Your task to perform on an android device: What's on my calendar tomorrow? Image 0: 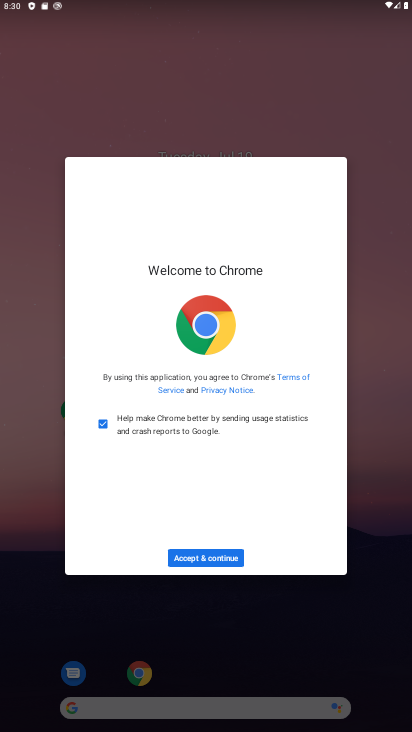
Step 0: press home button
Your task to perform on an android device: What's on my calendar tomorrow? Image 1: 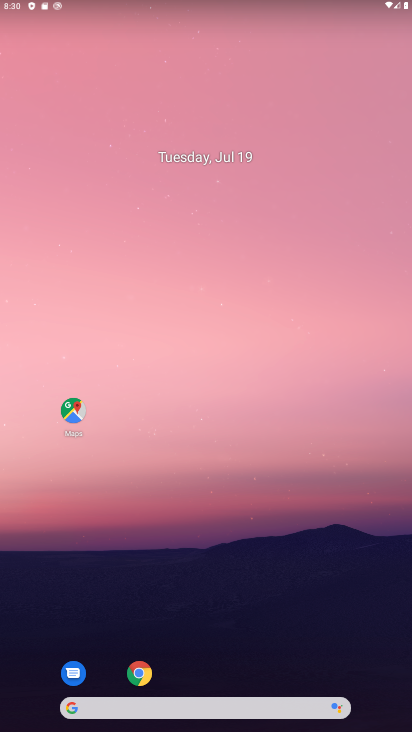
Step 1: drag from (246, 624) to (181, 108)
Your task to perform on an android device: What's on my calendar tomorrow? Image 2: 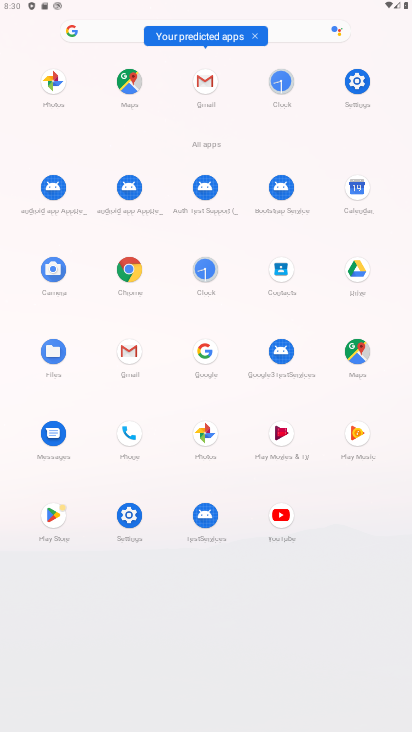
Step 2: click (350, 191)
Your task to perform on an android device: What's on my calendar tomorrow? Image 3: 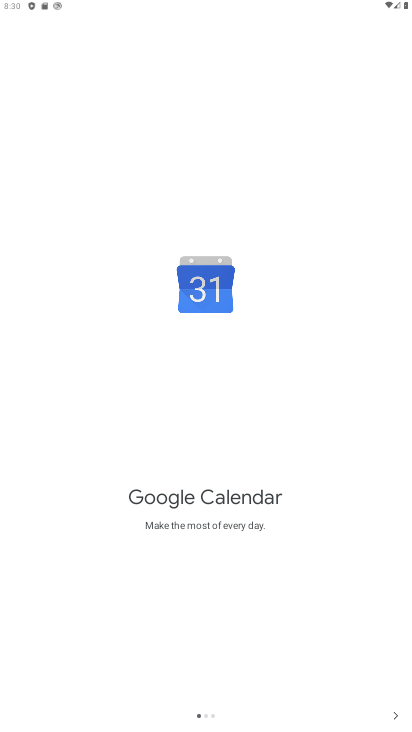
Step 3: click (400, 724)
Your task to perform on an android device: What's on my calendar tomorrow? Image 4: 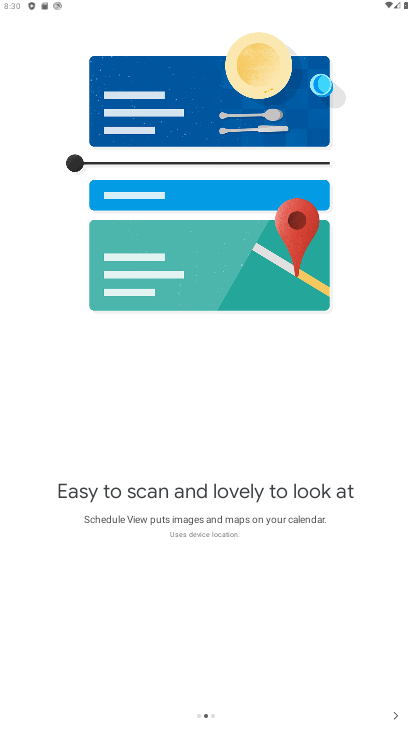
Step 4: click (400, 724)
Your task to perform on an android device: What's on my calendar tomorrow? Image 5: 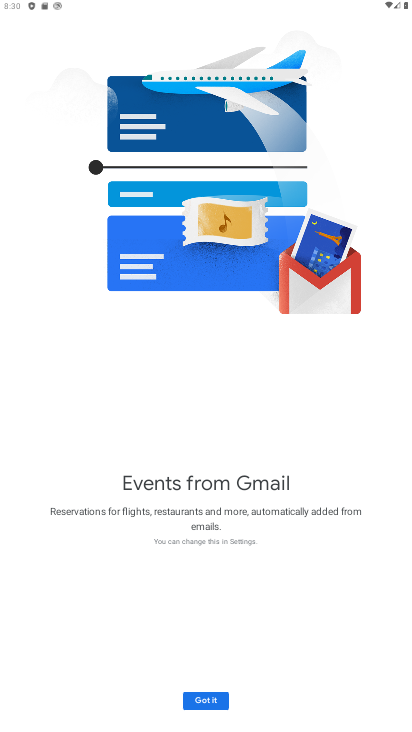
Step 5: click (400, 724)
Your task to perform on an android device: What's on my calendar tomorrow? Image 6: 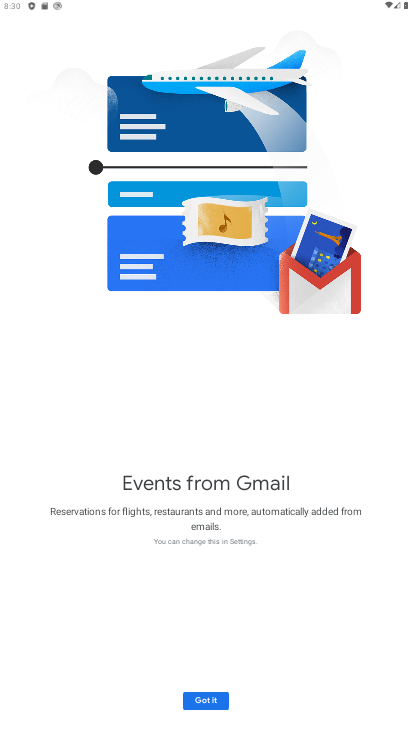
Step 6: click (206, 704)
Your task to perform on an android device: What's on my calendar tomorrow? Image 7: 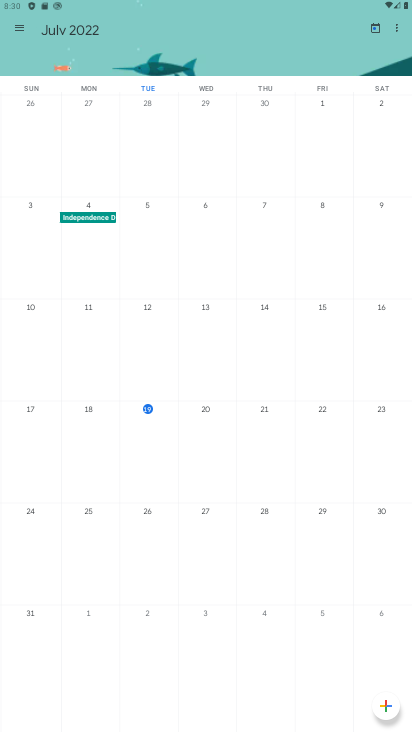
Step 7: click (18, 29)
Your task to perform on an android device: What's on my calendar tomorrow? Image 8: 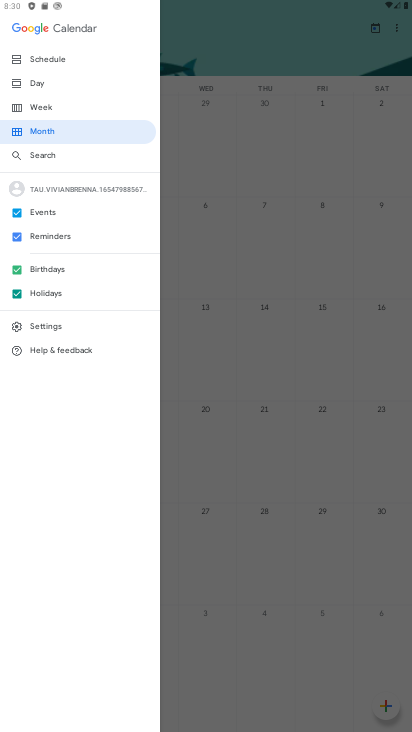
Step 8: click (45, 82)
Your task to perform on an android device: What's on my calendar tomorrow? Image 9: 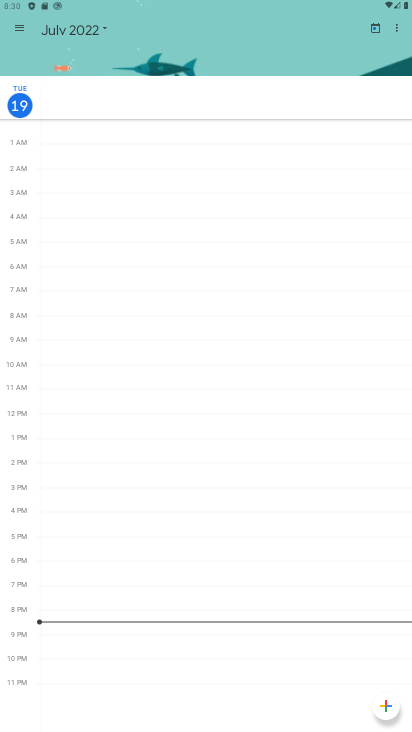
Step 9: task complete